Your task to perform on an android device: Open the calendar app, open the side menu, and click the "Day" option Image 0: 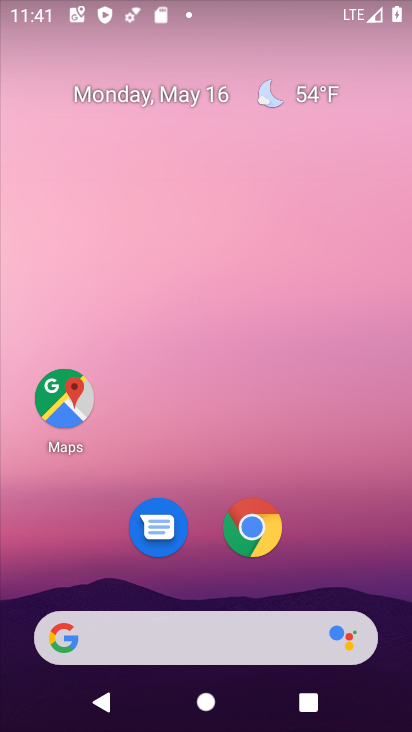
Step 0: press home button
Your task to perform on an android device: Open the calendar app, open the side menu, and click the "Day" option Image 1: 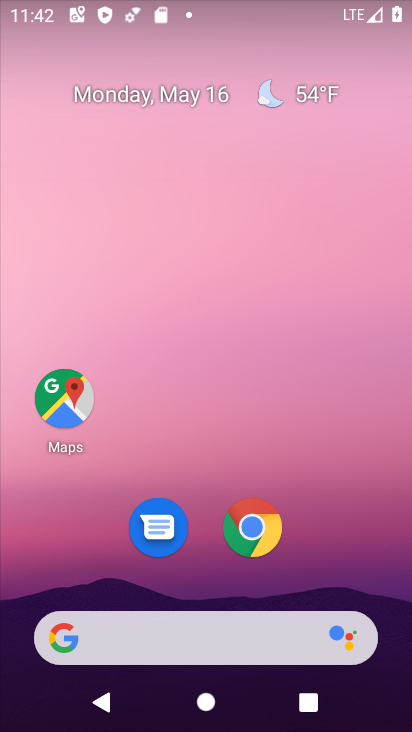
Step 1: drag from (263, 667) to (266, 129)
Your task to perform on an android device: Open the calendar app, open the side menu, and click the "Day" option Image 2: 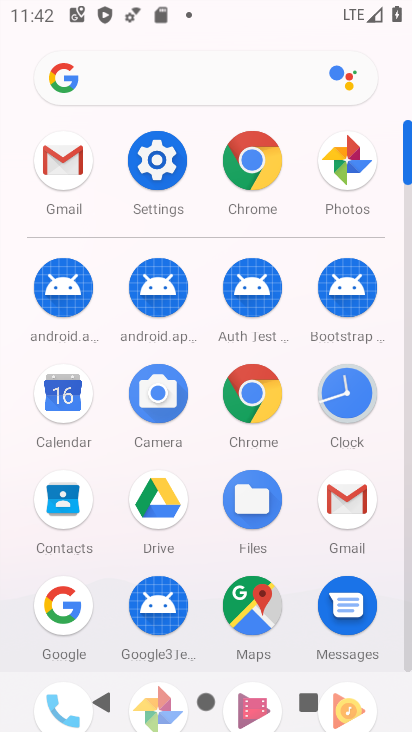
Step 2: click (80, 411)
Your task to perform on an android device: Open the calendar app, open the side menu, and click the "Day" option Image 3: 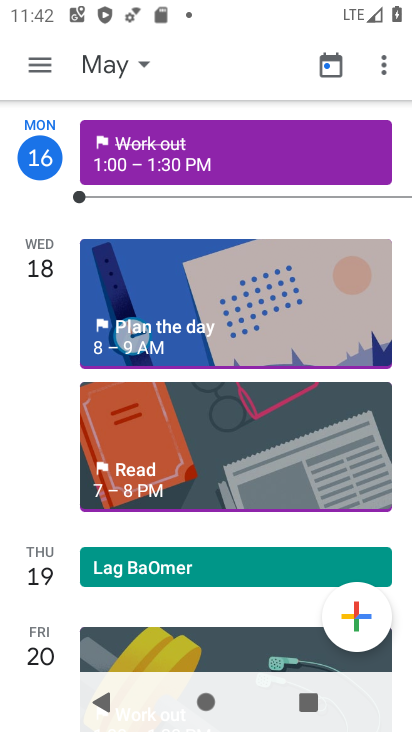
Step 3: click (30, 84)
Your task to perform on an android device: Open the calendar app, open the side menu, and click the "Day" option Image 4: 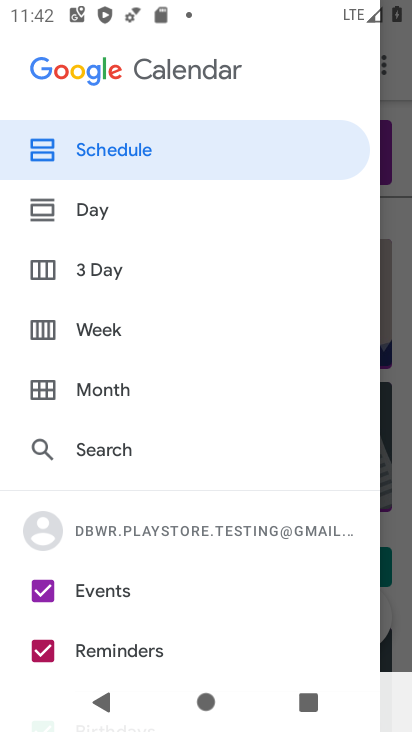
Step 4: click (63, 207)
Your task to perform on an android device: Open the calendar app, open the side menu, and click the "Day" option Image 5: 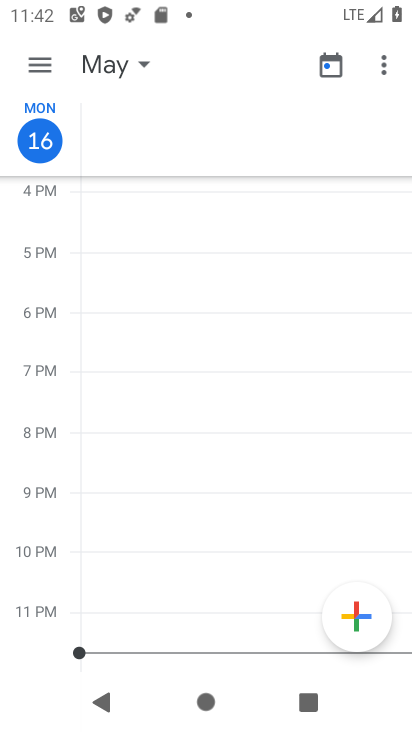
Step 5: task complete